Your task to perform on an android device: delete a single message in the gmail app Image 0: 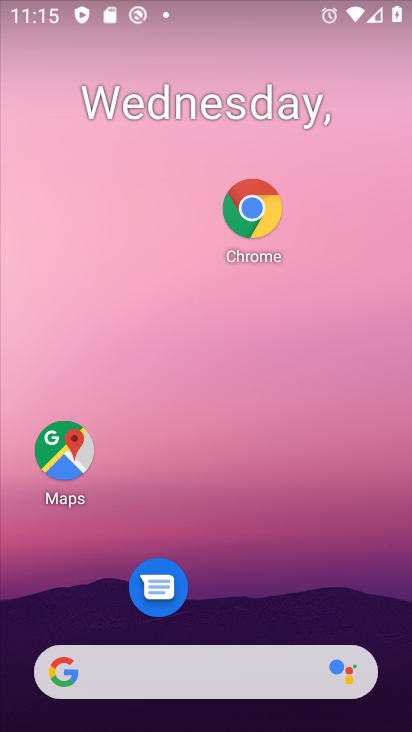
Step 0: drag from (226, 572) to (269, 5)
Your task to perform on an android device: delete a single message in the gmail app Image 1: 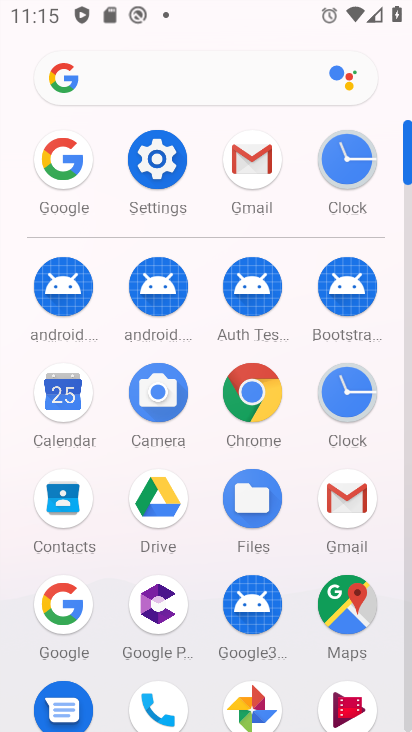
Step 1: click (341, 513)
Your task to perform on an android device: delete a single message in the gmail app Image 2: 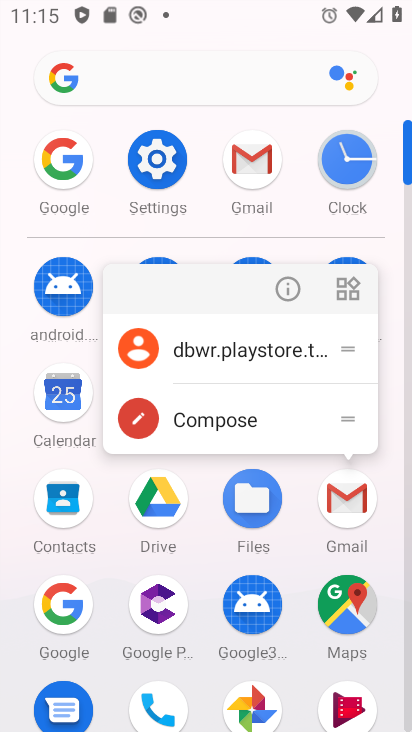
Step 2: click (344, 520)
Your task to perform on an android device: delete a single message in the gmail app Image 3: 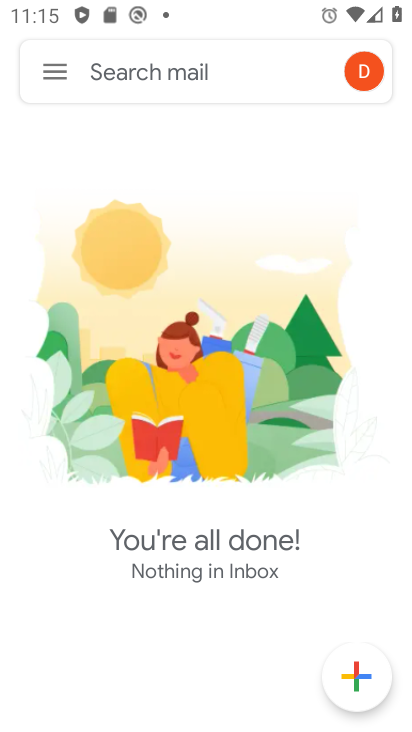
Step 3: click (42, 71)
Your task to perform on an android device: delete a single message in the gmail app Image 4: 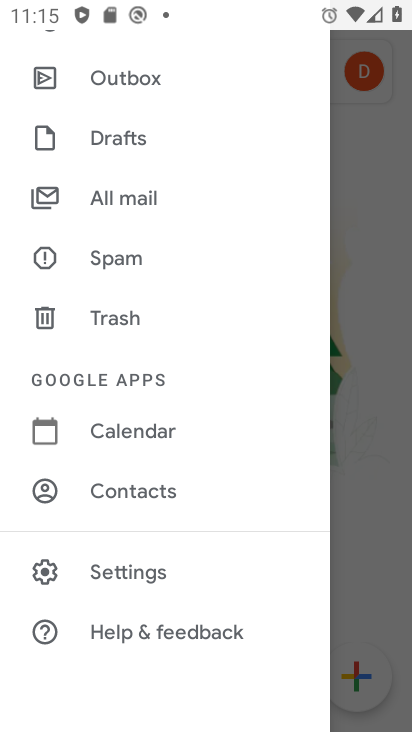
Step 4: click (136, 194)
Your task to perform on an android device: delete a single message in the gmail app Image 5: 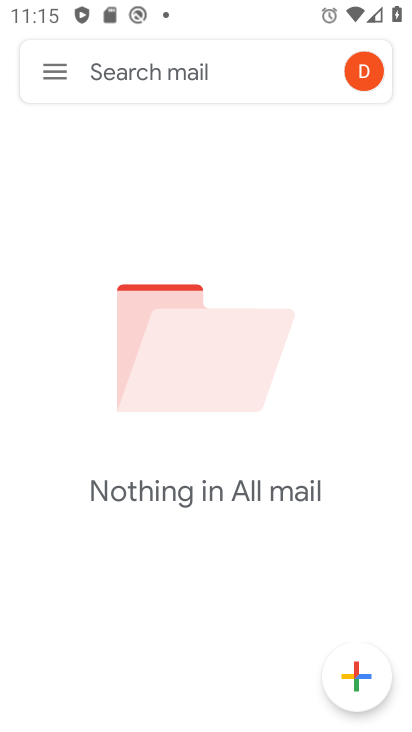
Step 5: task complete